Your task to perform on an android device: turn on improve location accuracy Image 0: 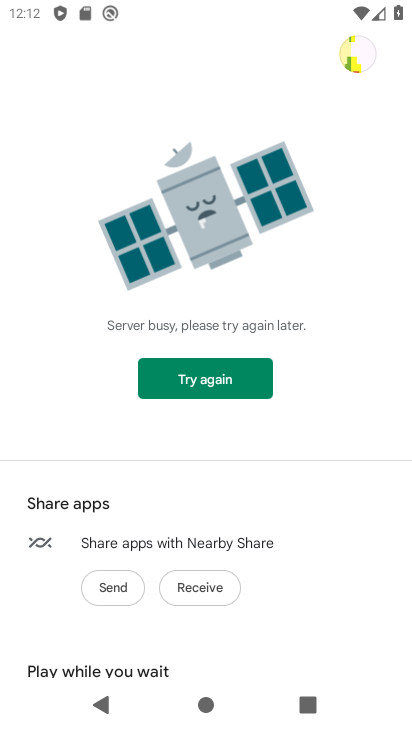
Step 0: press home button
Your task to perform on an android device: turn on improve location accuracy Image 1: 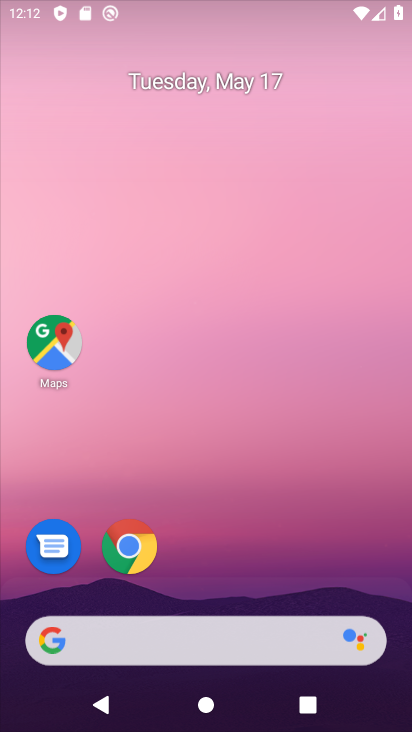
Step 1: drag from (235, 583) to (245, 142)
Your task to perform on an android device: turn on improve location accuracy Image 2: 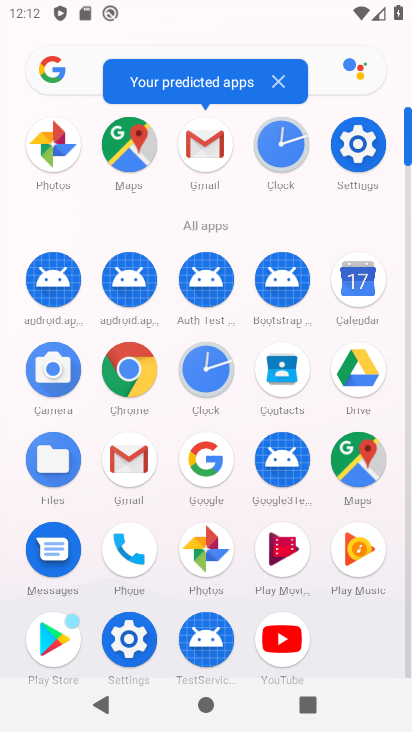
Step 2: click (369, 142)
Your task to perform on an android device: turn on improve location accuracy Image 3: 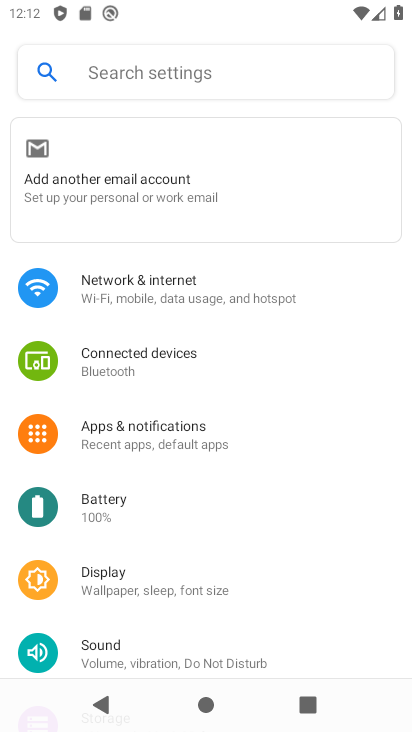
Step 3: drag from (167, 631) to (185, 351)
Your task to perform on an android device: turn on improve location accuracy Image 4: 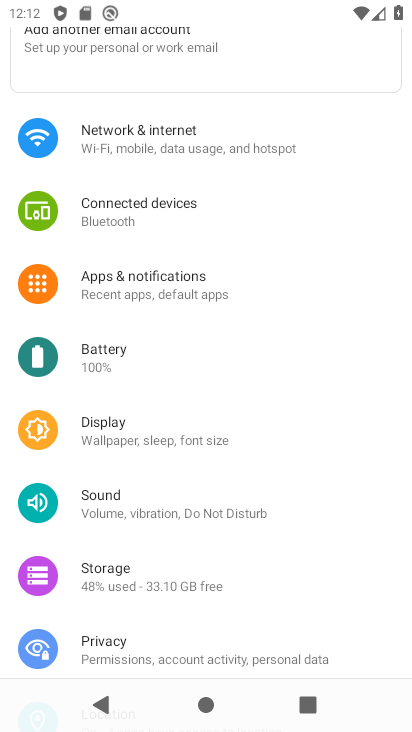
Step 4: drag from (149, 607) to (189, 373)
Your task to perform on an android device: turn on improve location accuracy Image 5: 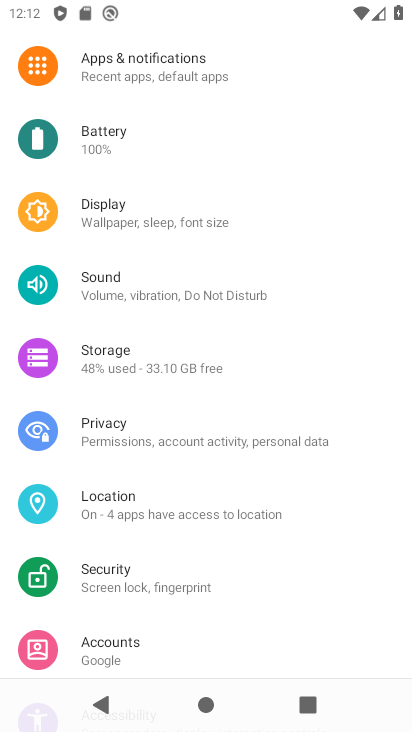
Step 5: click (118, 519)
Your task to perform on an android device: turn on improve location accuracy Image 6: 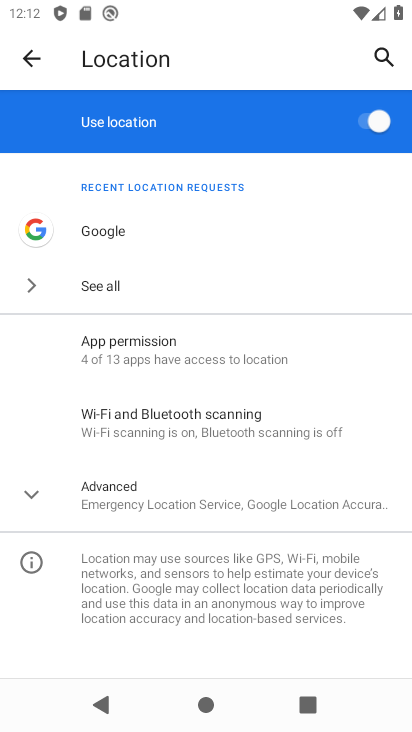
Step 6: click (167, 506)
Your task to perform on an android device: turn on improve location accuracy Image 7: 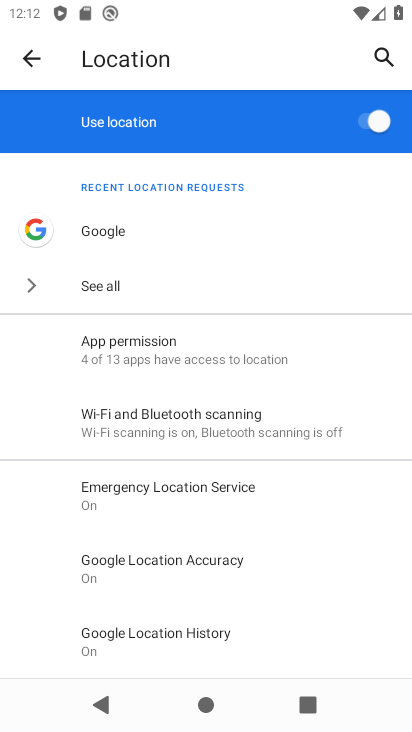
Step 7: click (209, 567)
Your task to perform on an android device: turn on improve location accuracy Image 8: 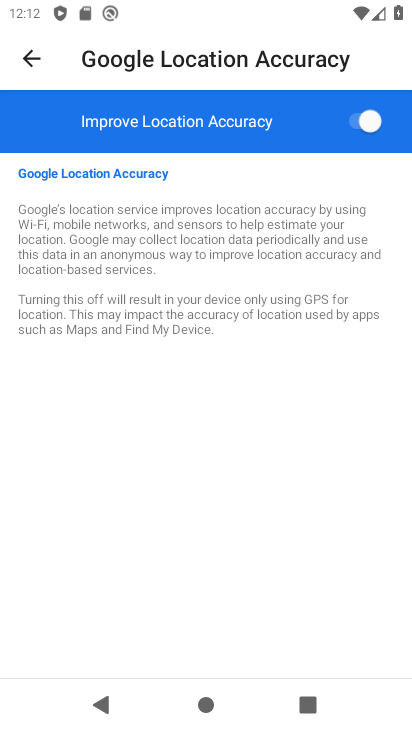
Step 8: task complete